Your task to perform on an android device: What is the recent news? Image 0: 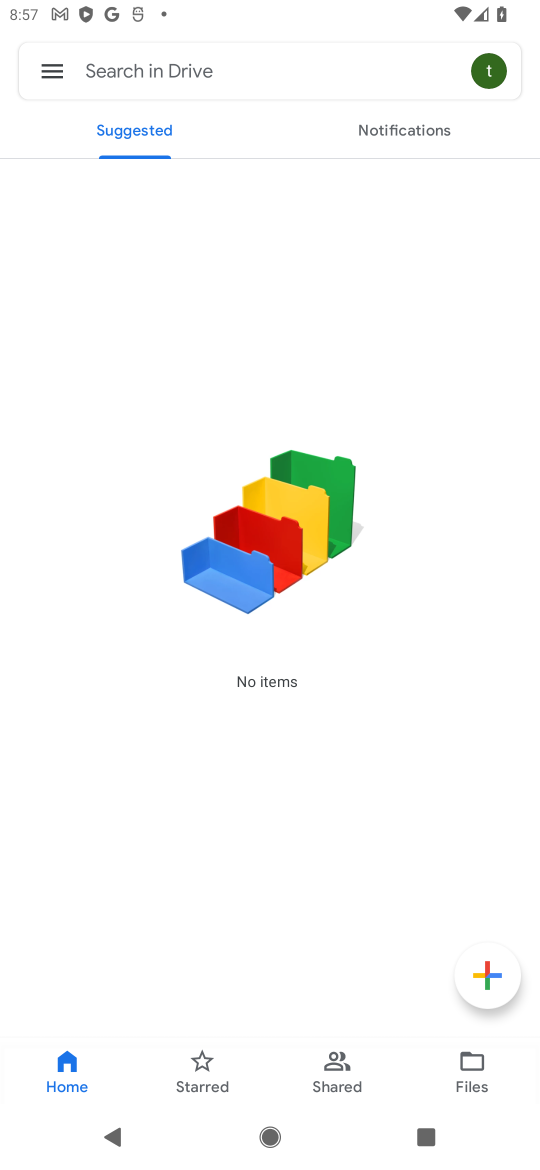
Step 0: press home button
Your task to perform on an android device: What is the recent news? Image 1: 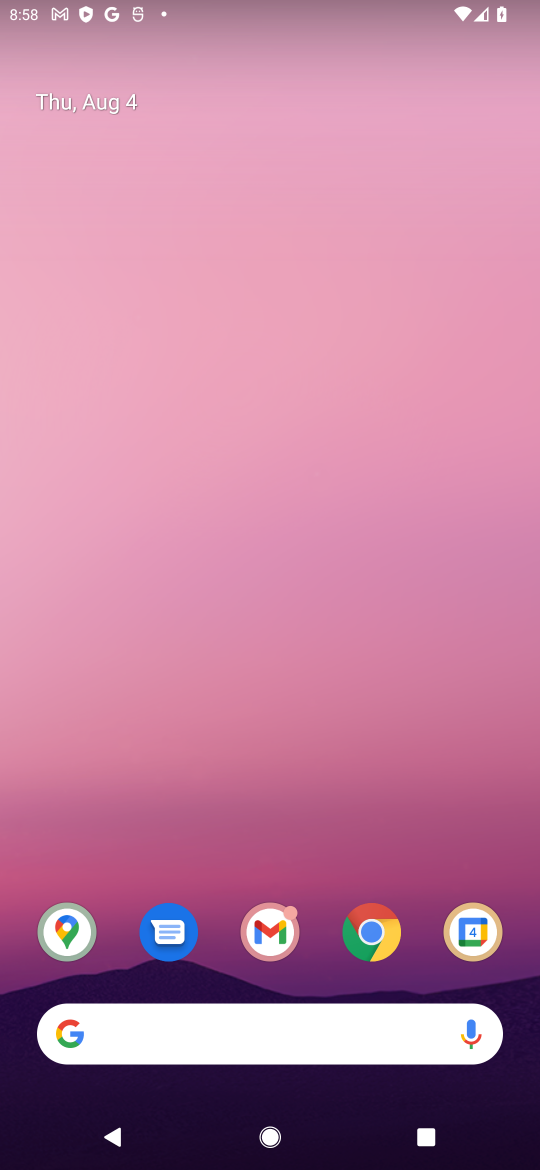
Step 1: click (258, 1024)
Your task to perform on an android device: What is the recent news? Image 2: 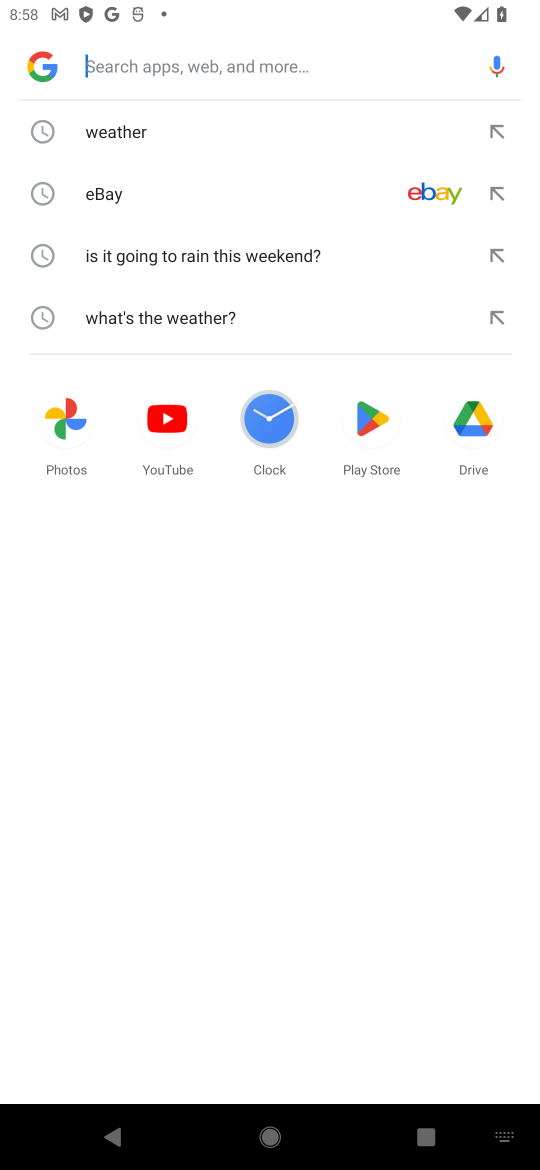
Step 2: type "recent news"
Your task to perform on an android device: What is the recent news? Image 3: 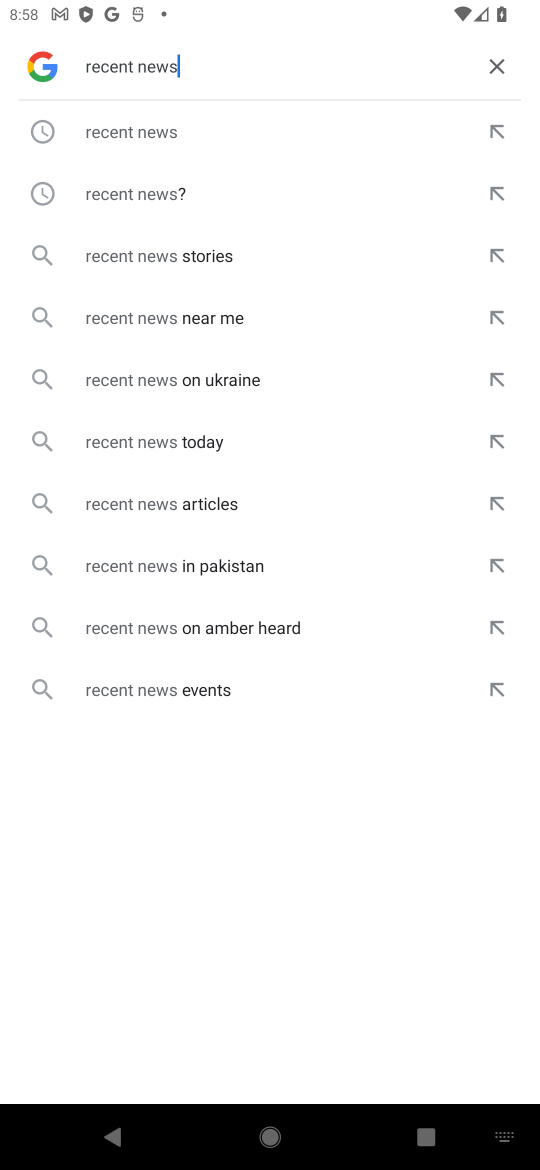
Step 3: click (144, 127)
Your task to perform on an android device: What is the recent news? Image 4: 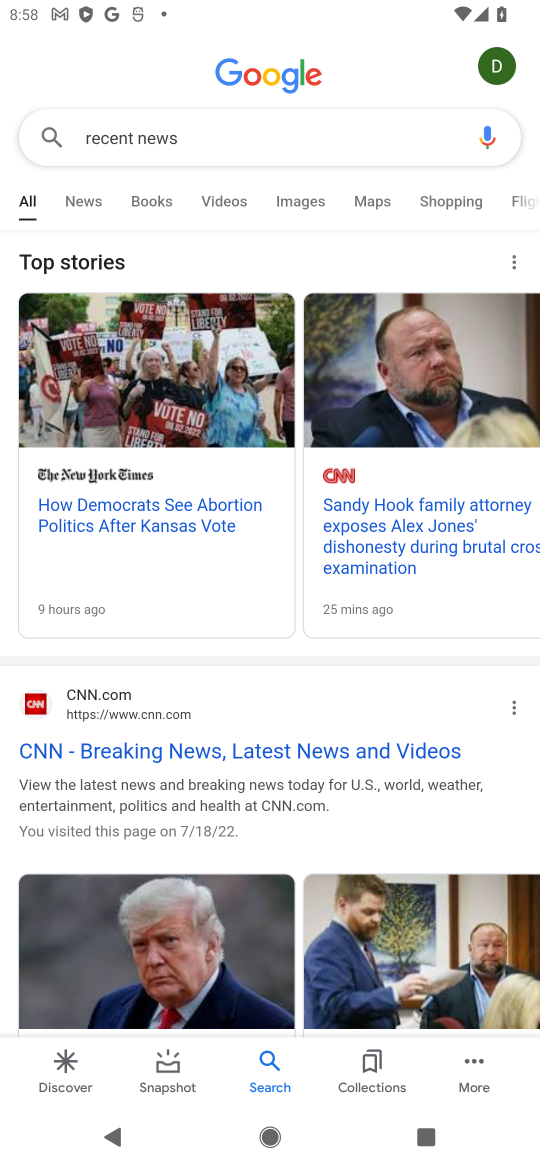
Step 4: task complete